Your task to perform on an android device: Open sound settings Image 0: 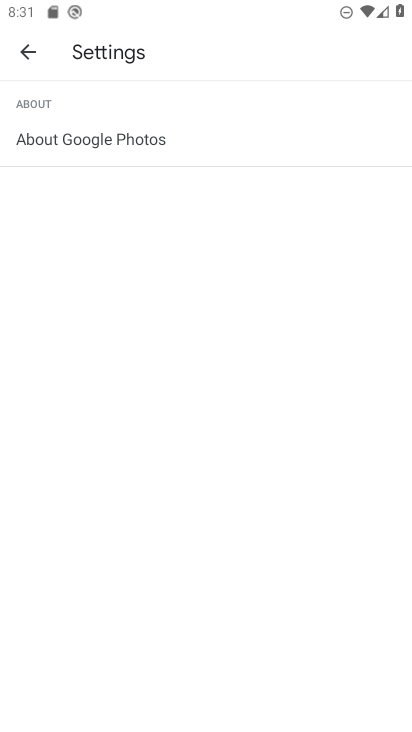
Step 0: press home button
Your task to perform on an android device: Open sound settings Image 1: 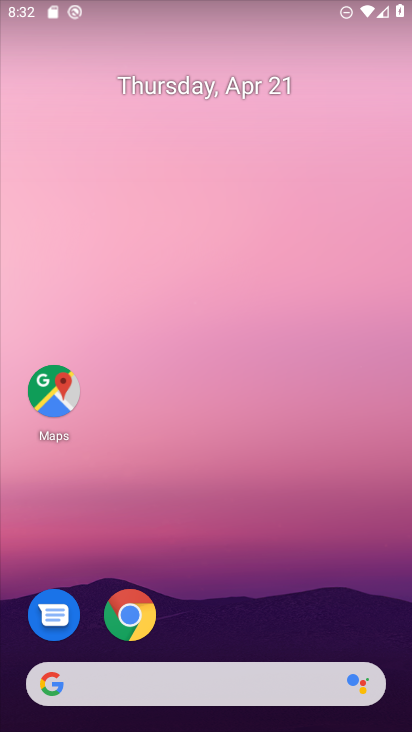
Step 1: drag from (282, 468) to (306, 136)
Your task to perform on an android device: Open sound settings Image 2: 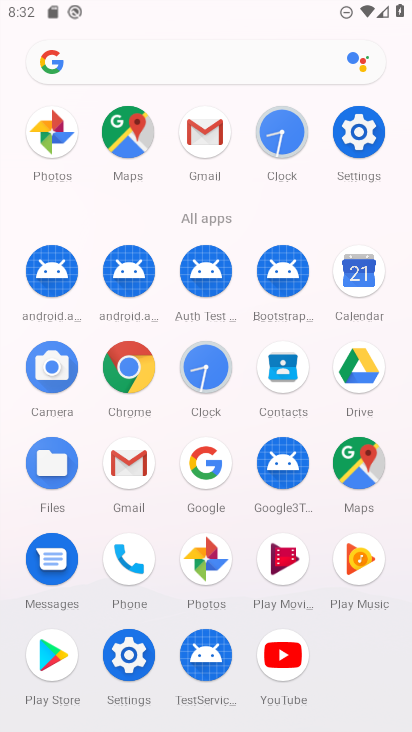
Step 2: click (379, 122)
Your task to perform on an android device: Open sound settings Image 3: 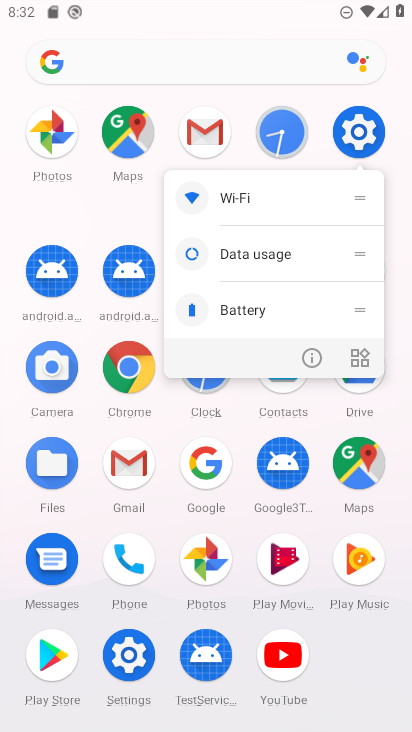
Step 3: click (359, 130)
Your task to perform on an android device: Open sound settings Image 4: 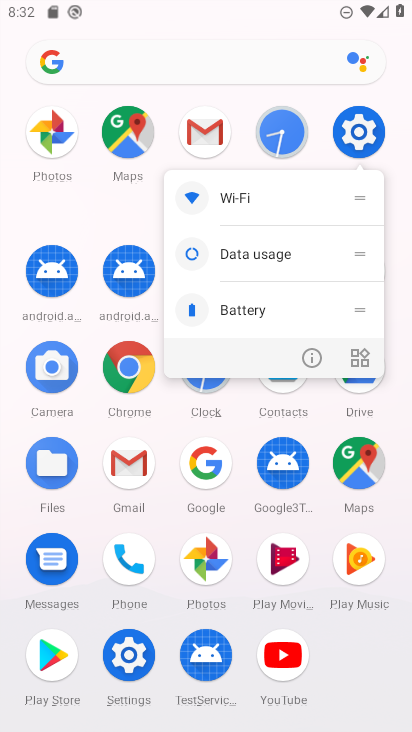
Step 4: click (359, 130)
Your task to perform on an android device: Open sound settings Image 5: 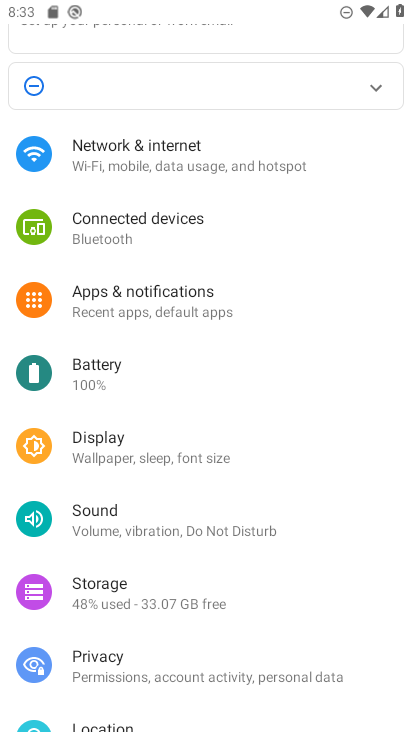
Step 5: drag from (295, 673) to (285, 252)
Your task to perform on an android device: Open sound settings Image 6: 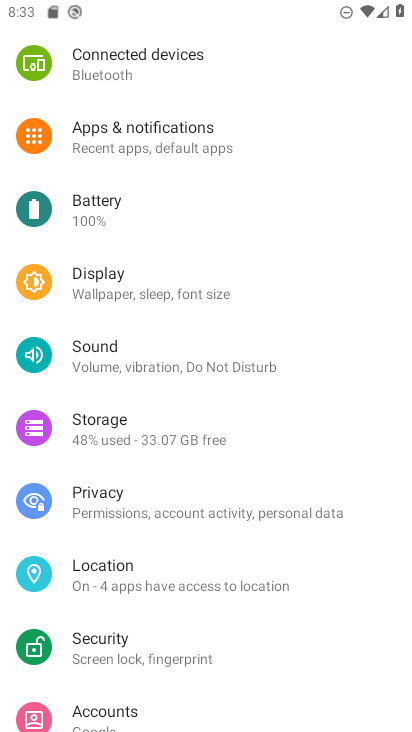
Step 6: click (150, 365)
Your task to perform on an android device: Open sound settings Image 7: 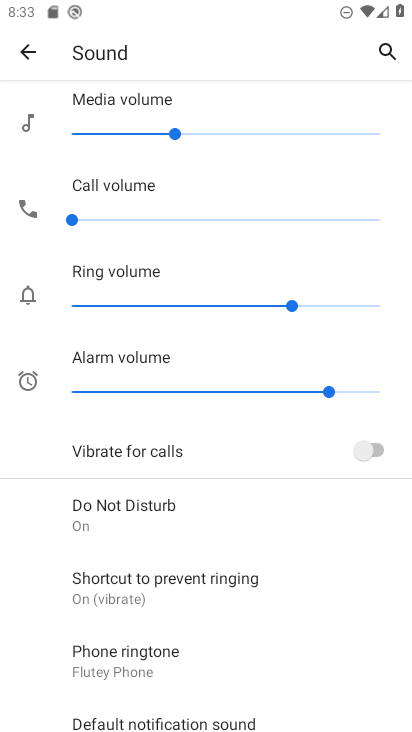
Step 7: task complete